Your task to perform on an android device: What is the news today? Image 0: 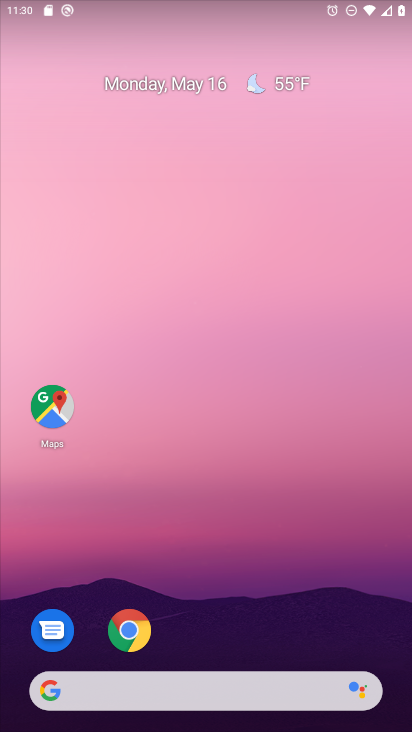
Step 0: drag from (217, 623) to (224, 49)
Your task to perform on an android device: What is the news today? Image 1: 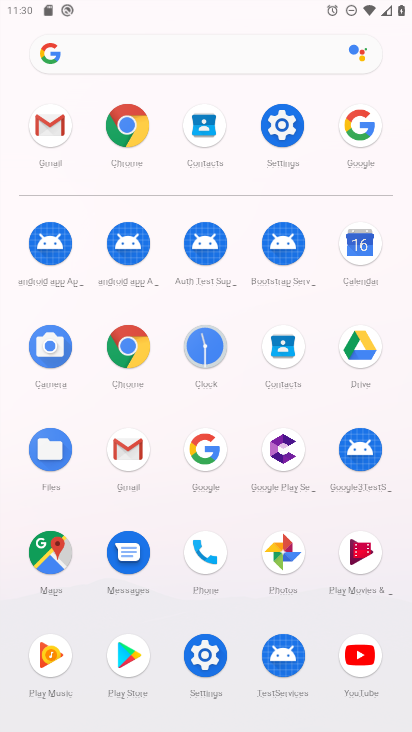
Step 1: click (203, 458)
Your task to perform on an android device: What is the news today? Image 2: 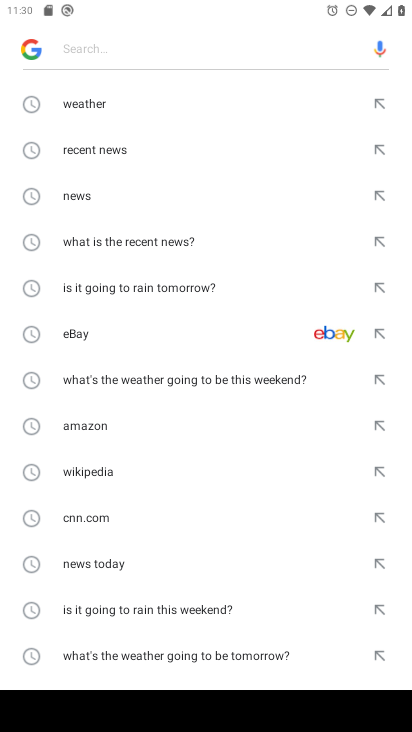
Step 2: click (114, 196)
Your task to perform on an android device: What is the news today? Image 3: 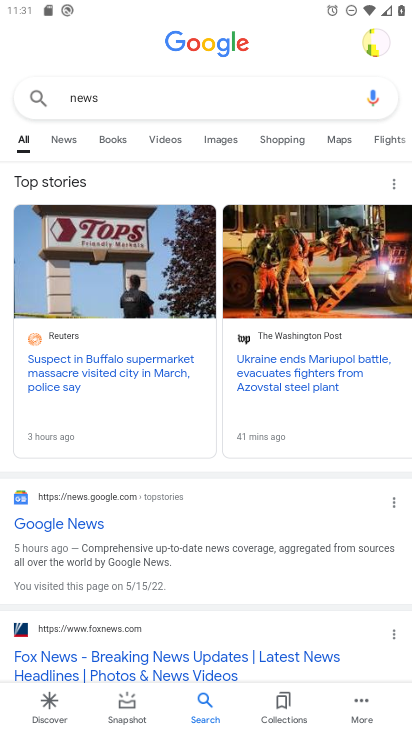
Step 3: click (62, 140)
Your task to perform on an android device: What is the news today? Image 4: 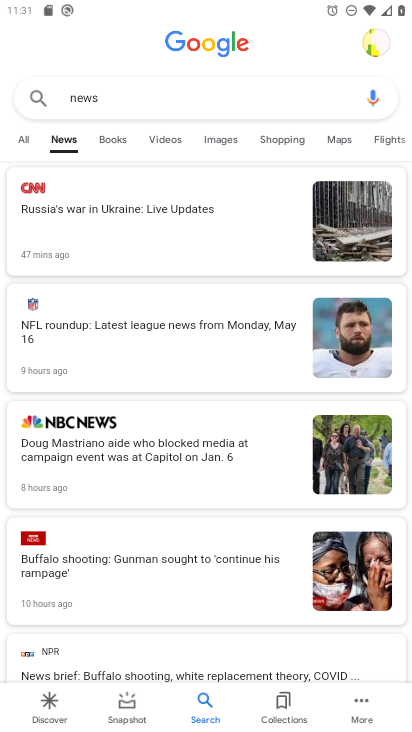
Step 4: task complete